Your task to perform on an android device: delete the emails in spam in the gmail app Image 0: 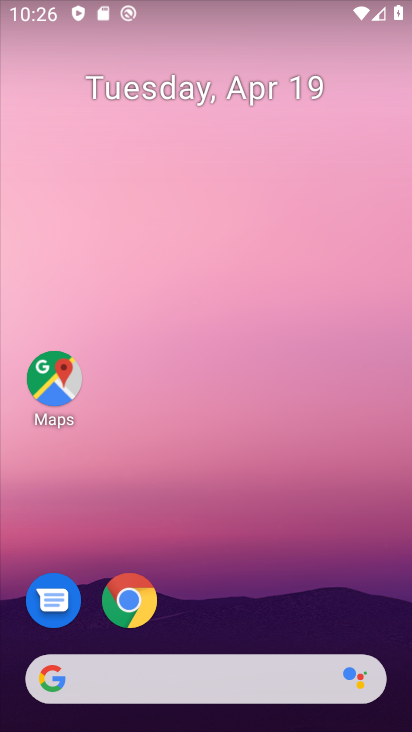
Step 0: drag from (201, 278) to (222, 54)
Your task to perform on an android device: delete the emails in spam in the gmail app Image 1: 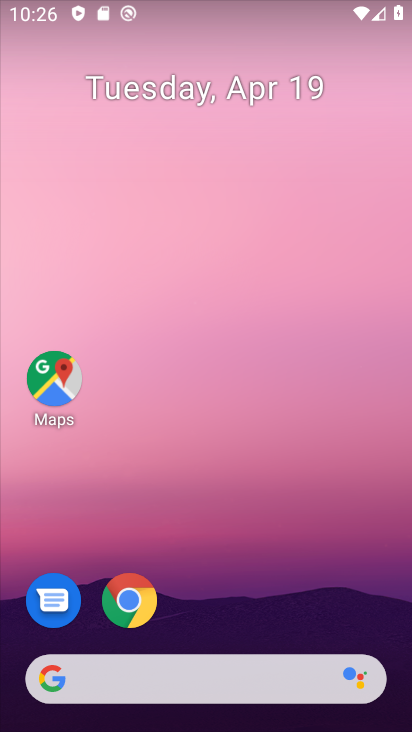
Step 1: drag from (205, 610) to (207, 4)
Your task to perform on an android device: delete the emails in spam in the gmail app Image 2: 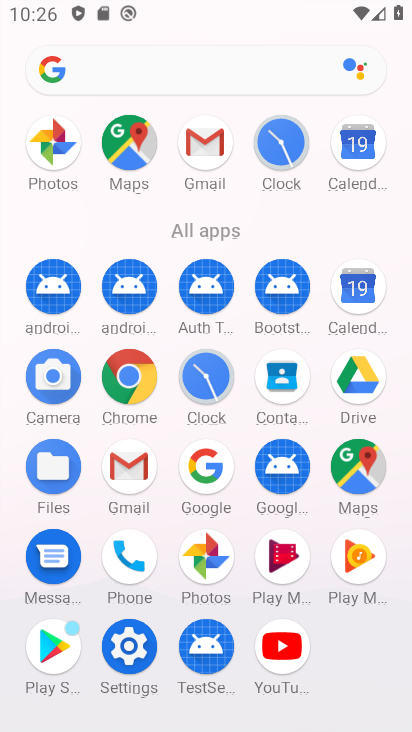
Step 2: click (122, 473)
Your task to perform on an android device: delete the emails in spam in the gmail app Image 3: 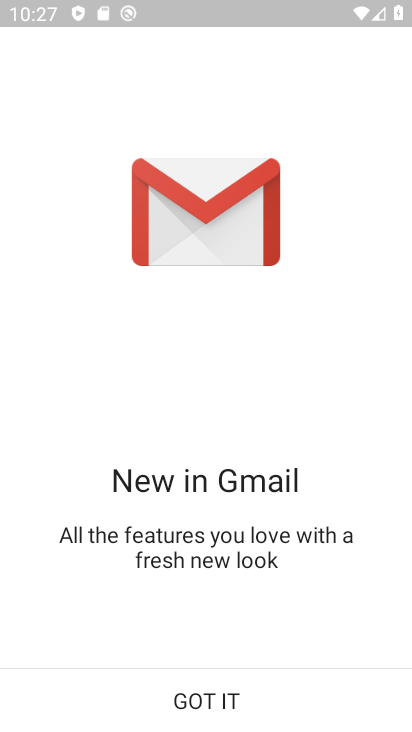
Step 3: click (176, 696)
Your task to perform on an android device: delete the emails in spam in the gmail app Image 4: 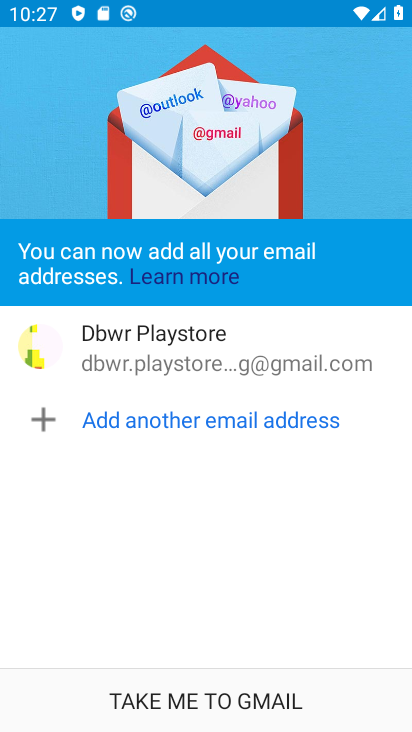
Step 4: click (176, 696)
Your task to perform on an android device: delete the emails in spam in the gmail app Image 5: 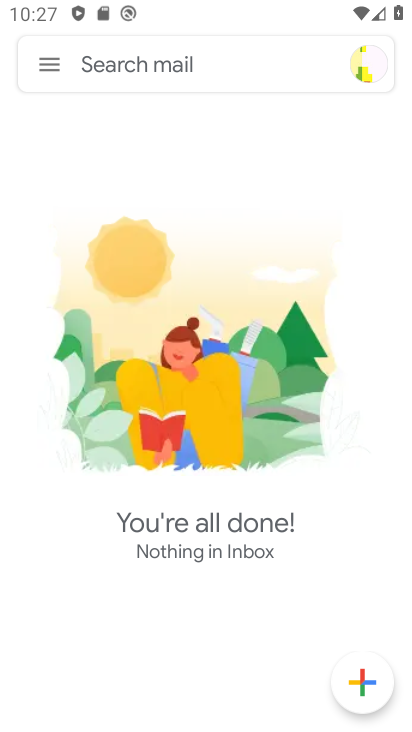
Step 5: click (43, 69)
Your task to perform on an android device: delete the emails in spam in the gmail app Image 6: 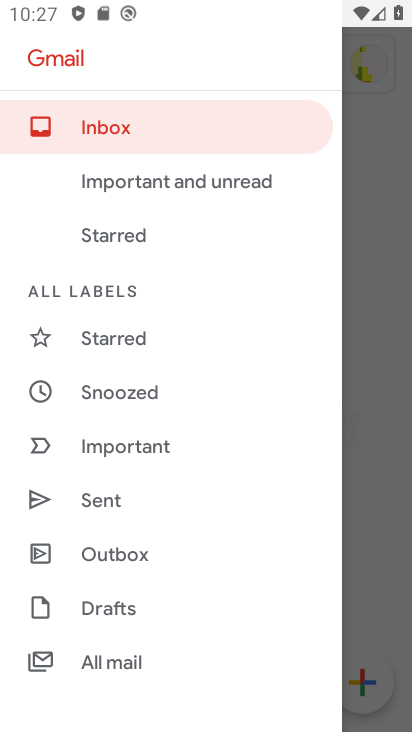
Step 6: click (50, 69)
Your task to perform on an android device: delete the emails in spam in the gmail app Image 7: 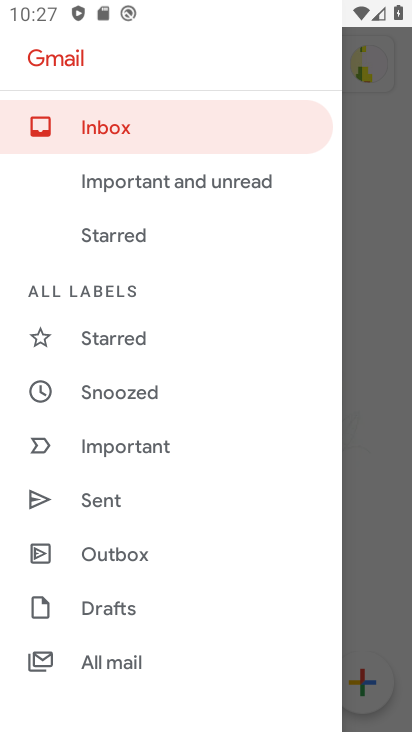
Step 7: drag from (151, 527) to (163, 312)
Your task to perform on an android device: delete the emails in spam in the gmail app Image 8: 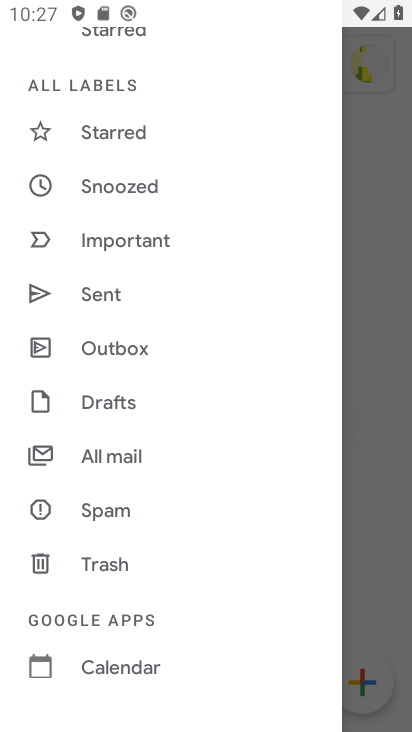
Step 8: drag from (129, 579) to (158, 353)
Your task to perform on an android device: delete the emails in spam in the gmail app Image 9: 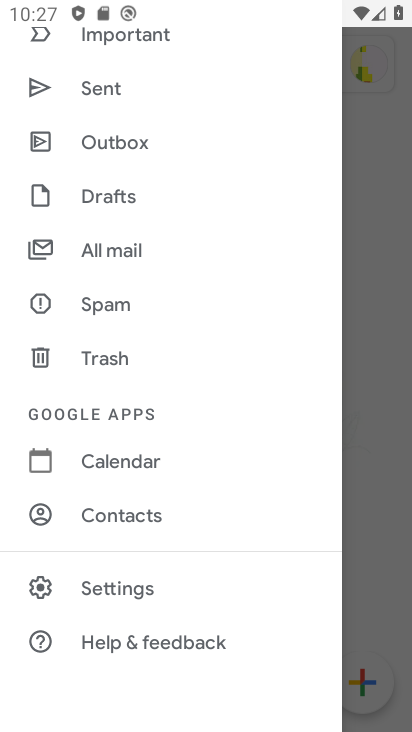
Step 9: click (121, 300)
Your task to perform on an android device: delete the emails in spam in the gmail app Image 10: 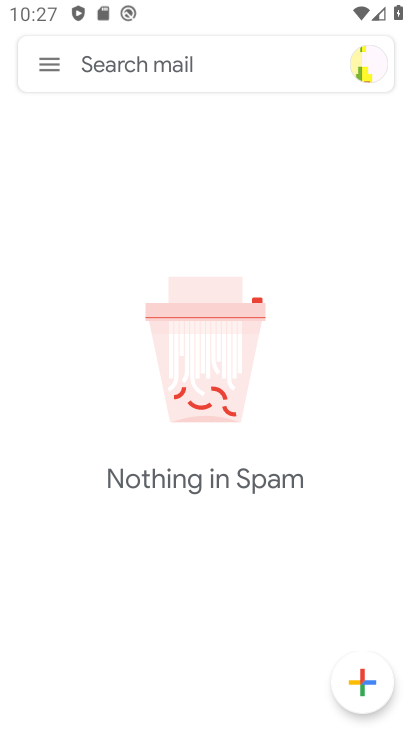
Step 10: task complete